Your task to perform on an android device: Show me the alarms in the clock app Image 0: 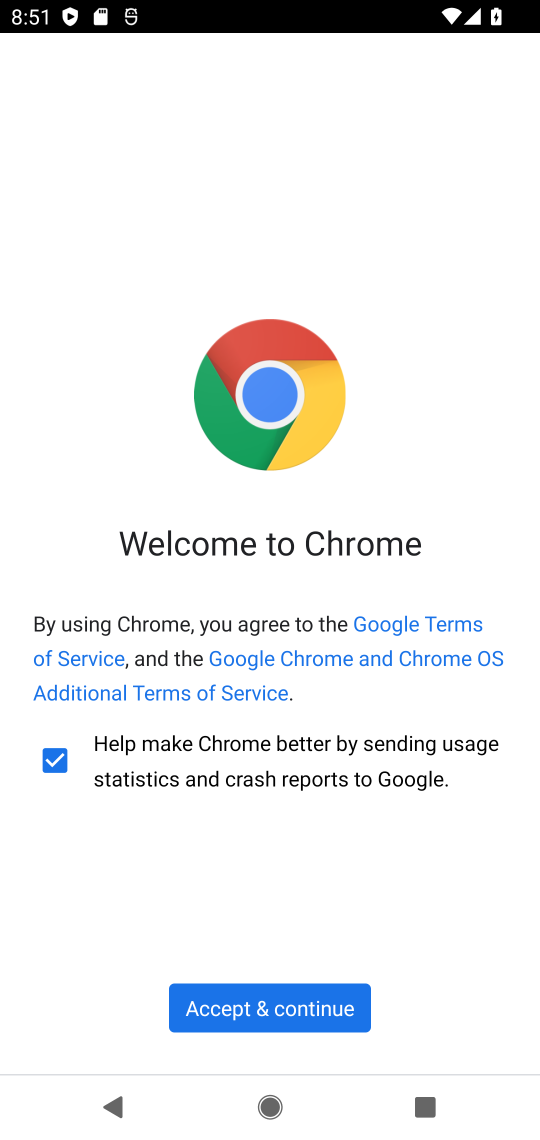
Step 0: press home button
Your task to perform on an android device: Show me the alarms in the clock app Image 1: 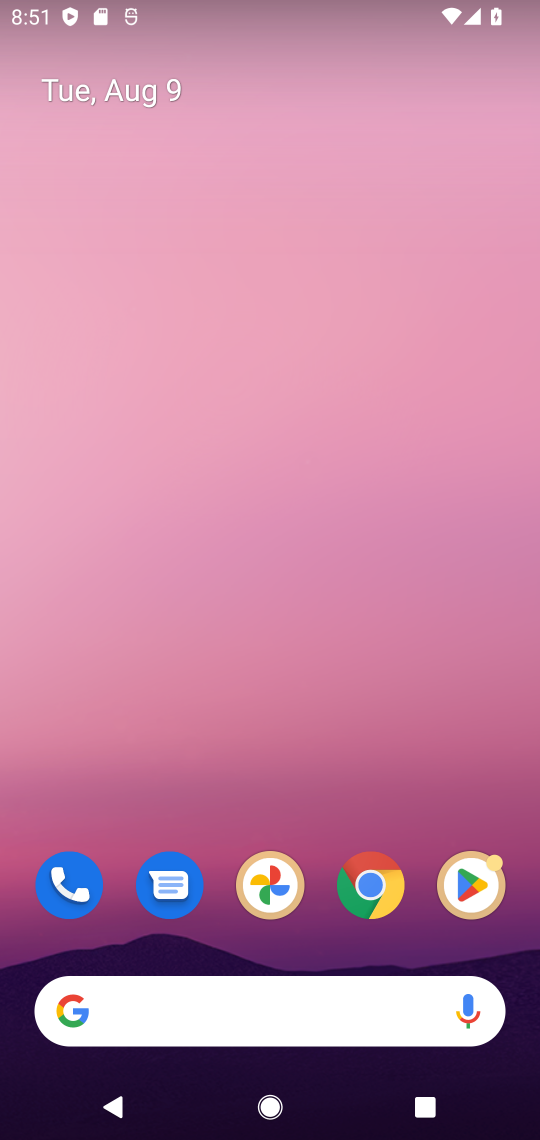
Step 1: drag from (228, 822) to (170, 15)
Your task to perform on an android device: Show me the alarms in the clock app Image 2: 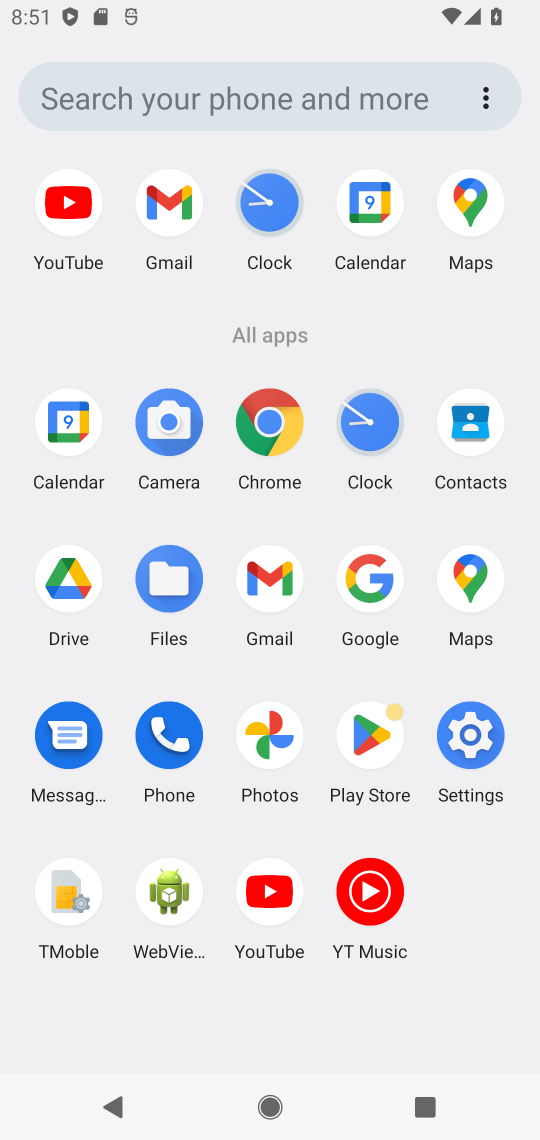
Step 2: click (386, 418)
Your task to perform on an android device: Show me the alarms in the clock app Image 3: 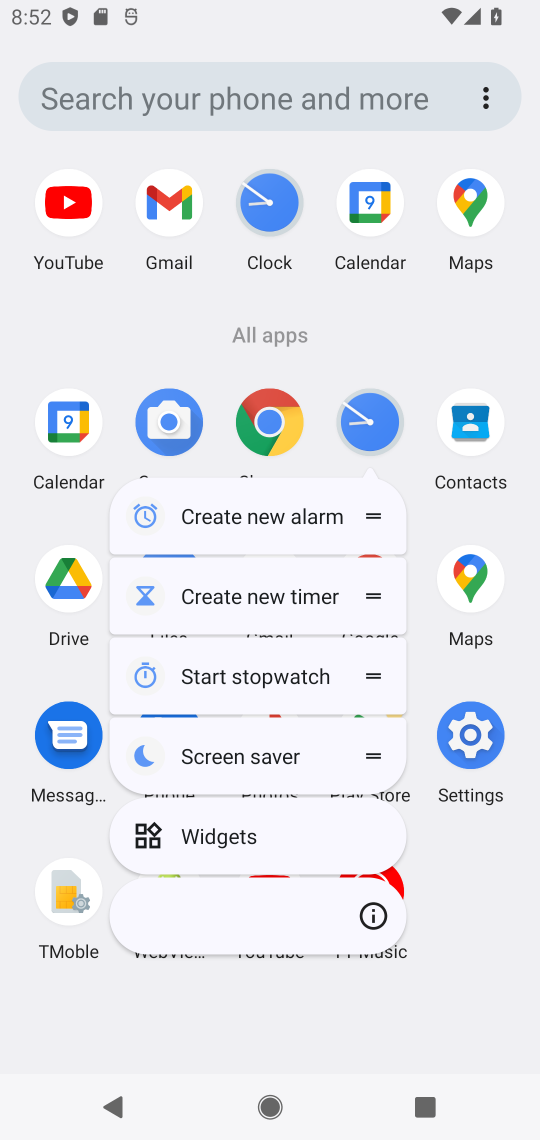
Step 3: click (367, 414)
Your task to perform on an android device: Show me the alarms in the clock app Image 4: 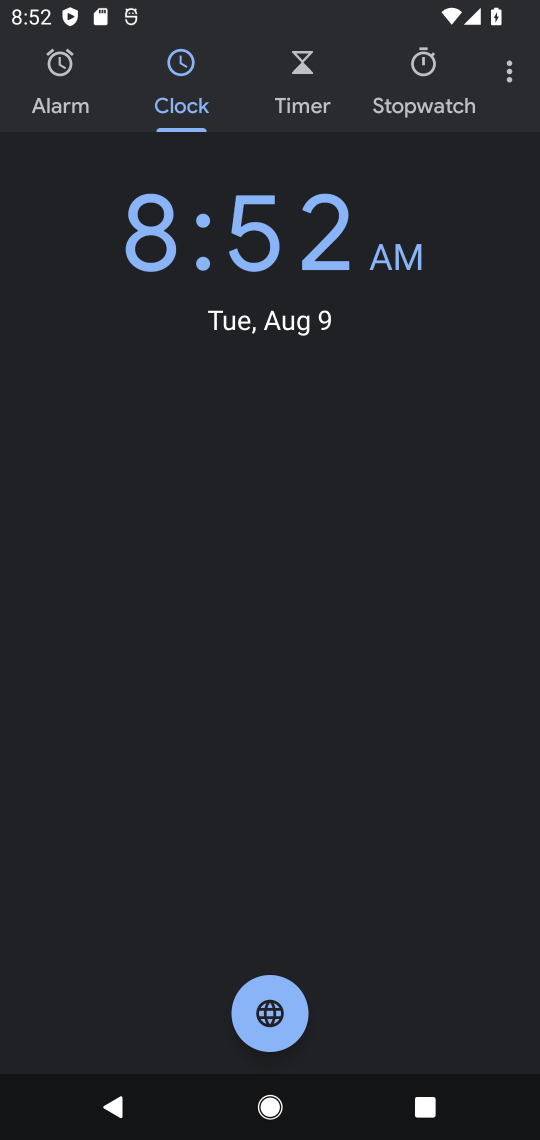
Step 4: click (61, 65)
Your task to perform on an android device: Show me the alarms in the clock app Image 5: 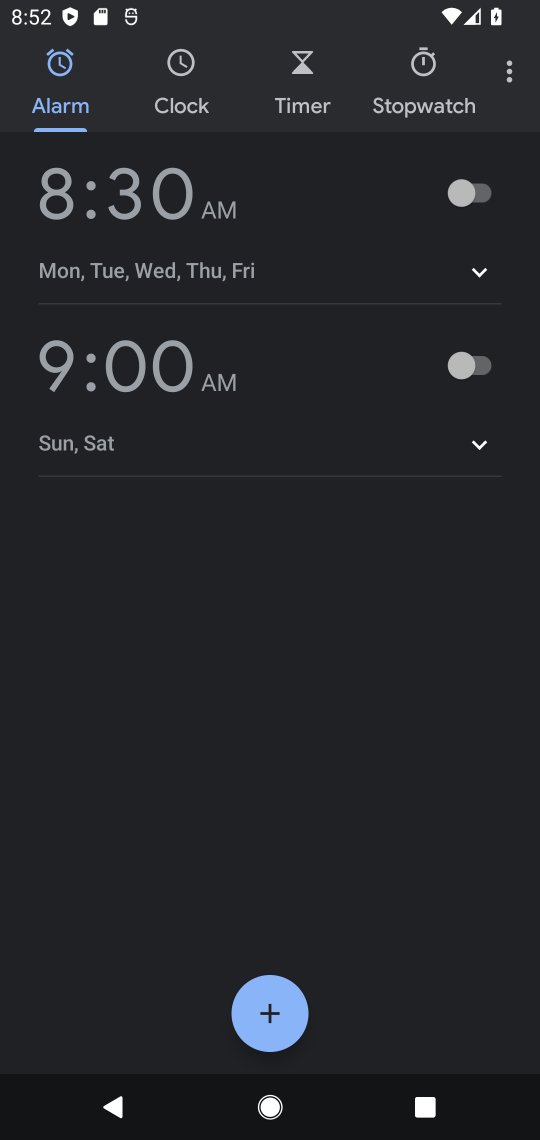
Step 5: click (468, 209)
Your task to perform on an android device: Show me the alarms in the clock app Image 6: 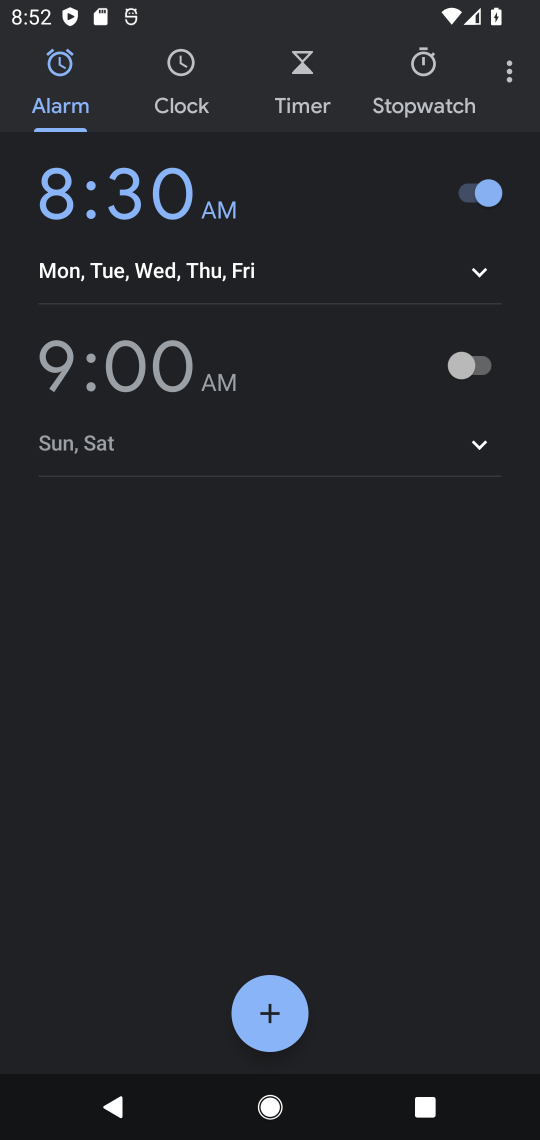
Step 6: task complete